Your task to perform on an android device: Go to internet settings Image 0: 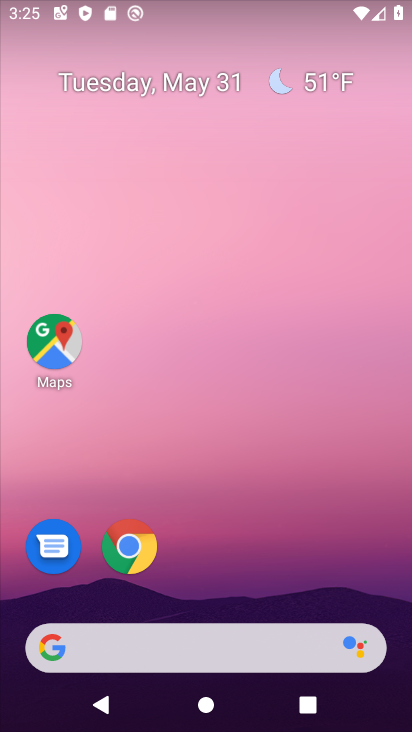
Step 0: drag from (181, 592) to (159, 268)
Your task to perform on an android device: Go to internet settings Image 1: 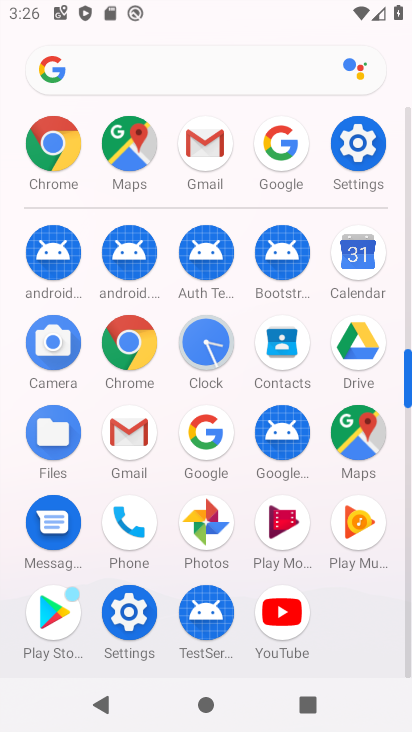
Step 1: click (374, 169)
Your task to perform on an android device: Go to internet settings Image 2: 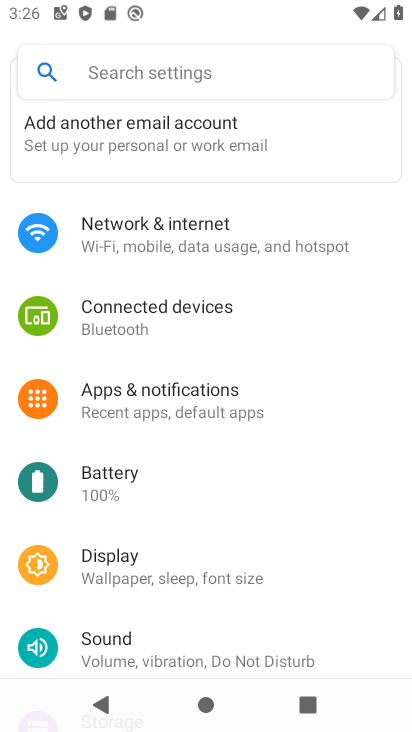
Step 2: click (160, 237)
Your task to perform on an android device: Go to internet settings Image 3: 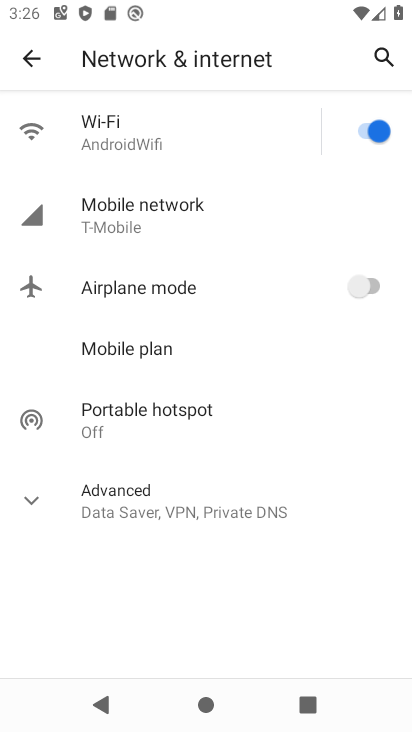
Step 3: task complete